Your task to perform on an android device: toggle sleep mode Image 0: 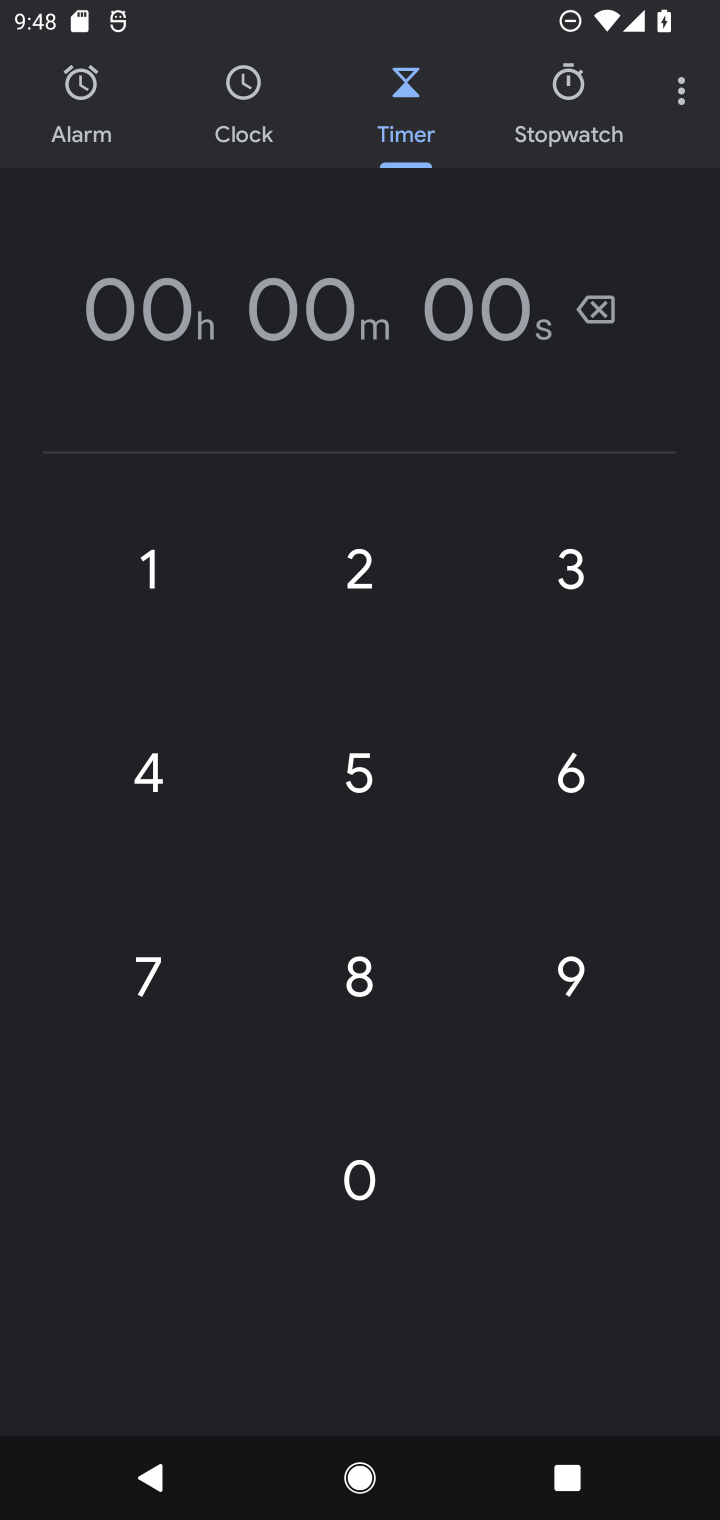
Step 0: press home button
Your task to perform on an android device: toggle sleep mode Image 1: 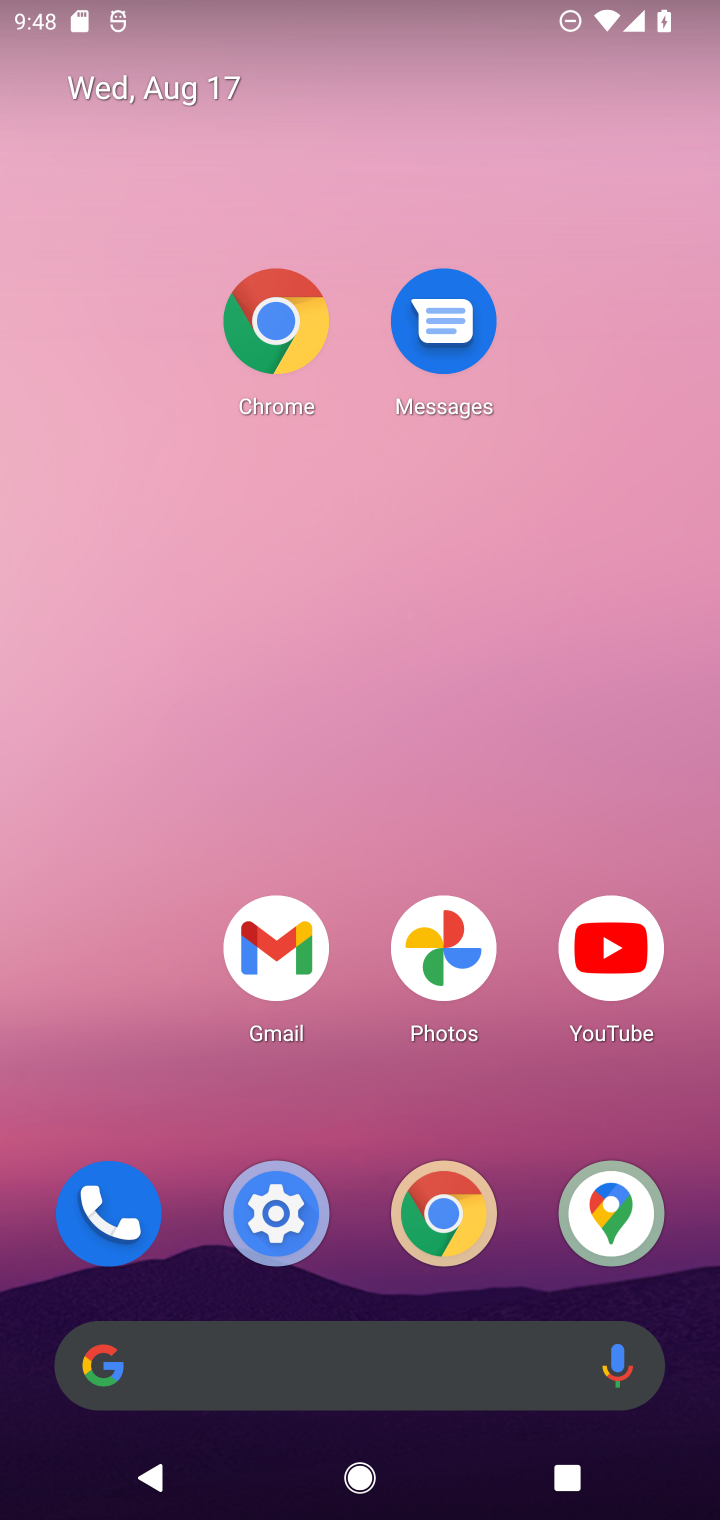
Step 1: click (295, 1247)
Your task to perform on an android device: toggle sleep mode Image 2: 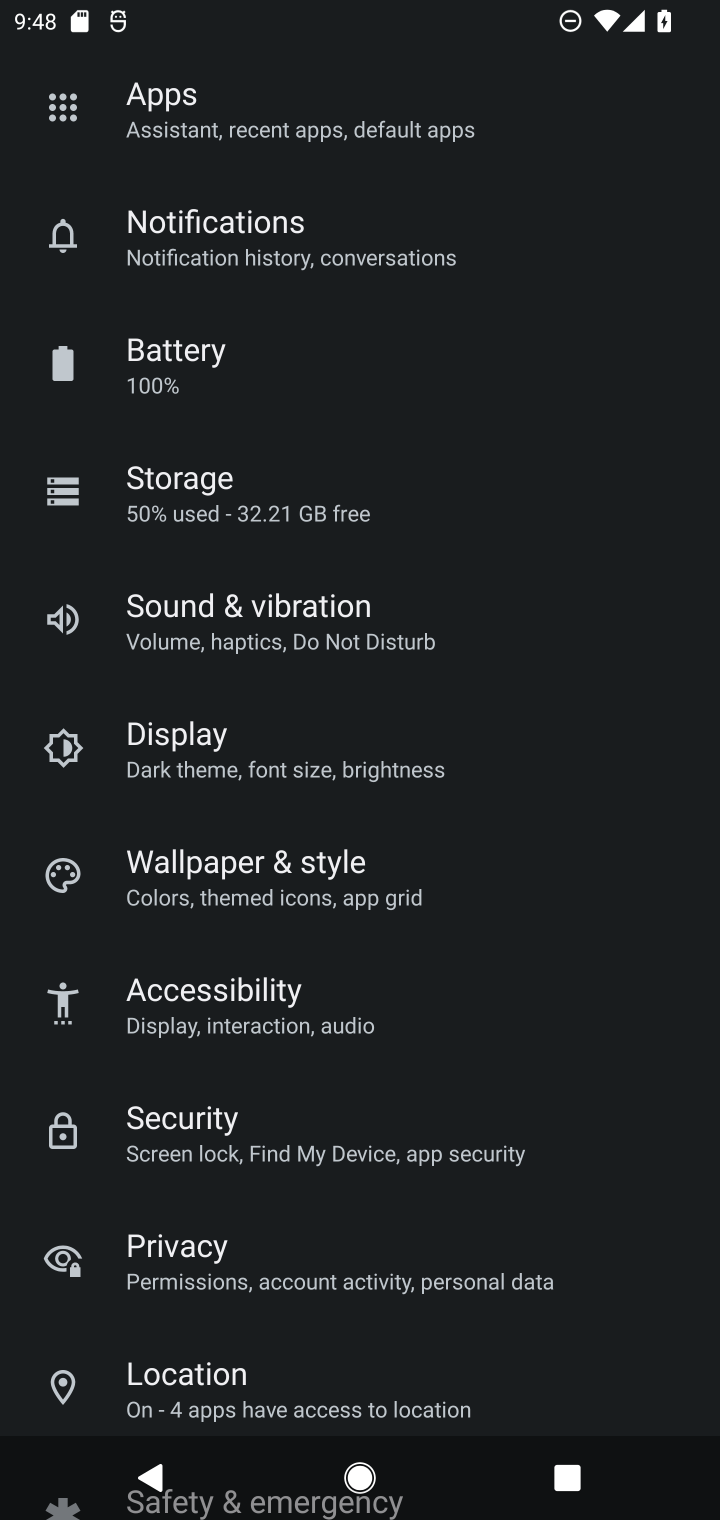
Step 2: click (260, 678)
Your task to perform on an android device: toggle sleep mode Image 3: 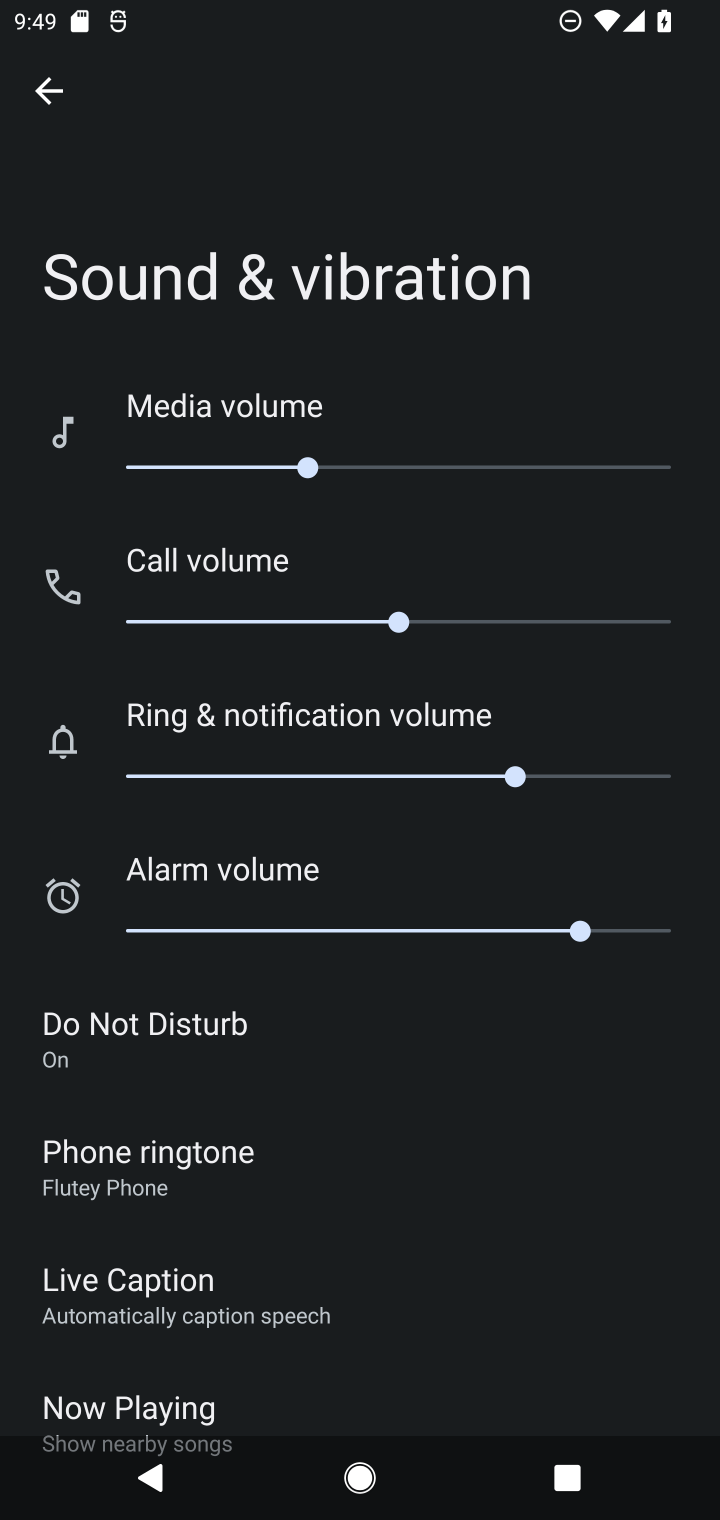
Step 3: task complete